Your task to perform on an android device: turn on bluetooth scan Image 0: 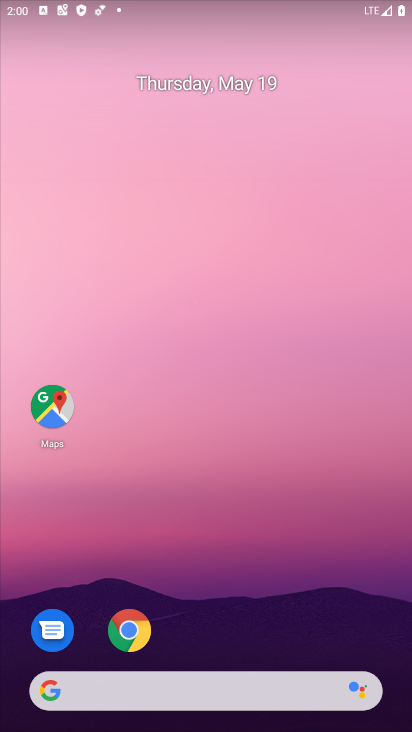
Step 0: drag from (391, 653) to (298, 15)
Your task to perform on an android device: turn on bluetooth scan Image 1: 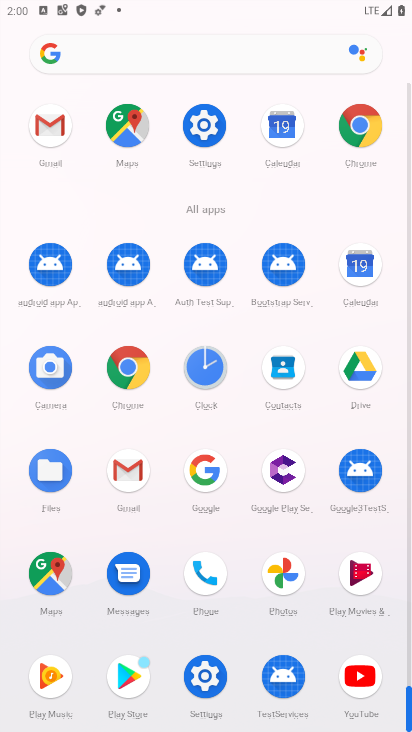
Step 1: click (203, 676)
Your task to perform on an android device: turn on bluetooth scan Image 2: 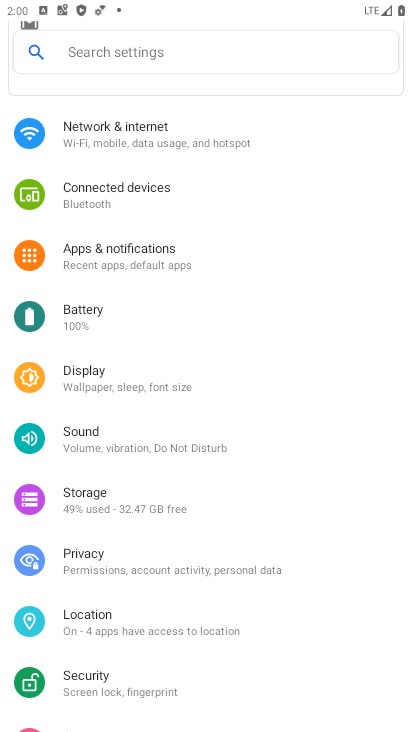
Step 2: click (82, 618)
Your task to perform on an android device: turn on bluetooth scan Image 3: 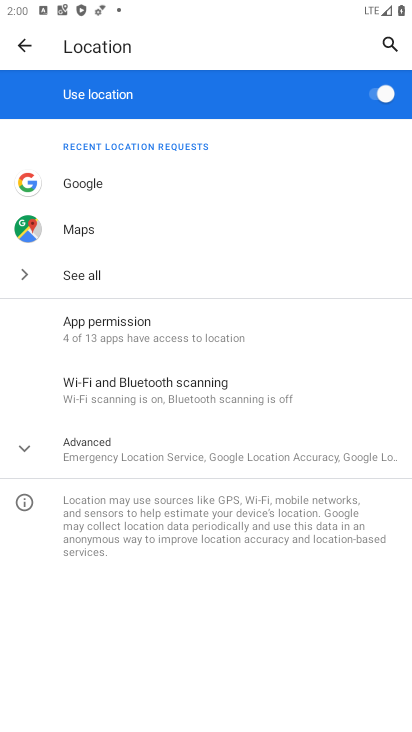
Step 3: click (146, 377)
Your task to perform on an android device: turn on bluetooth scan Image 4: 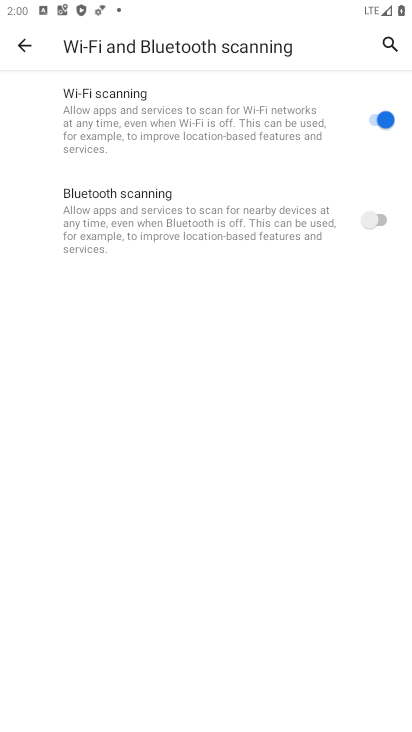
Step 4: click (383, 217)
Your task to perform on an android device: turn on bluetooth scan Image 5: 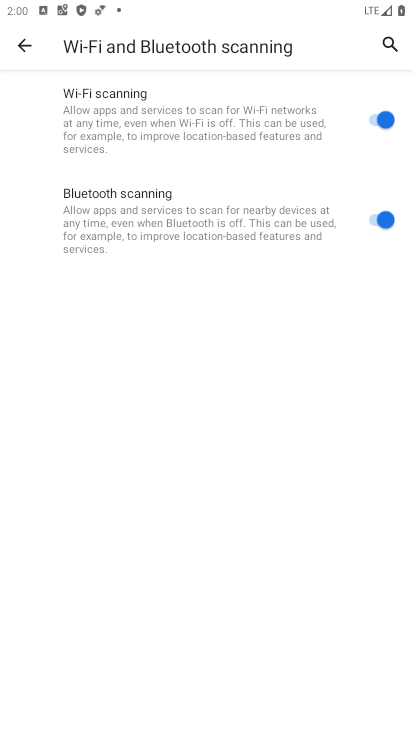
Step 5: task complete